Your task to perform on an android device: clear history in the chrome app Image 0: 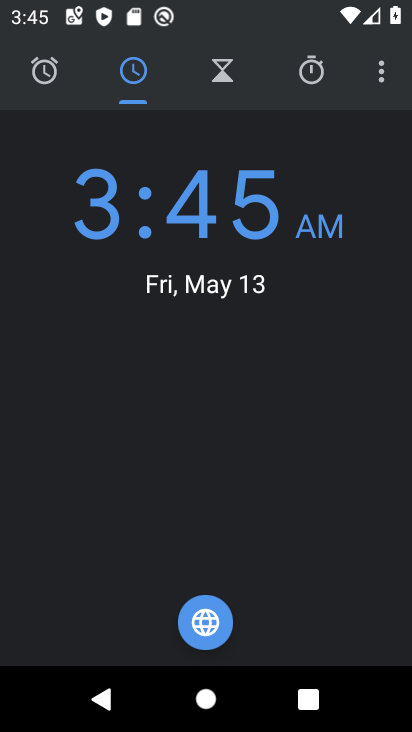
Step 0: press home button
Your task to perform on an android device: clear history in the chrome app Image 1: 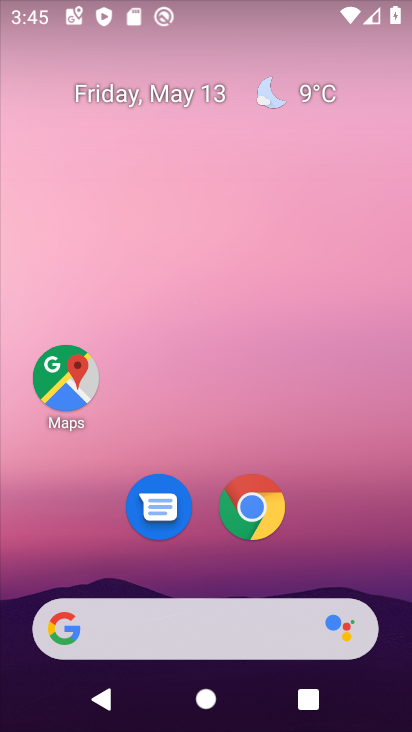
Step 1: drag from (348, 524) to (329, 80)
Your task to perform on an android device: clear history in the chrome app Image 2: 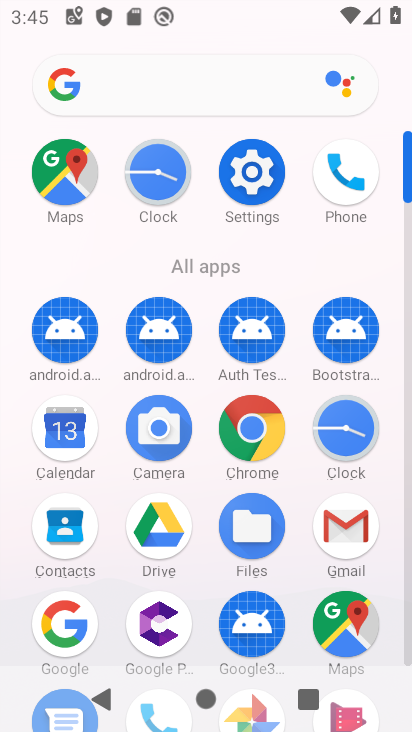
Step 2: click (259, 446)
Your task to perform on an android device: clear history in the chrome app Image 3: 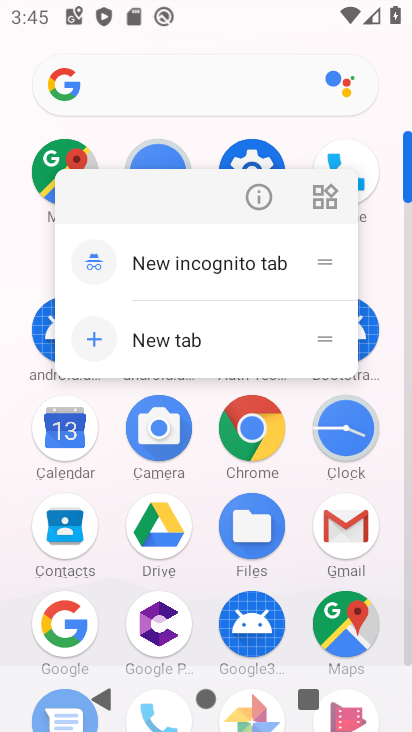
Step 3: click (259, 446)
Your task to perform on an android device: clear history in the chrome app Image 4: 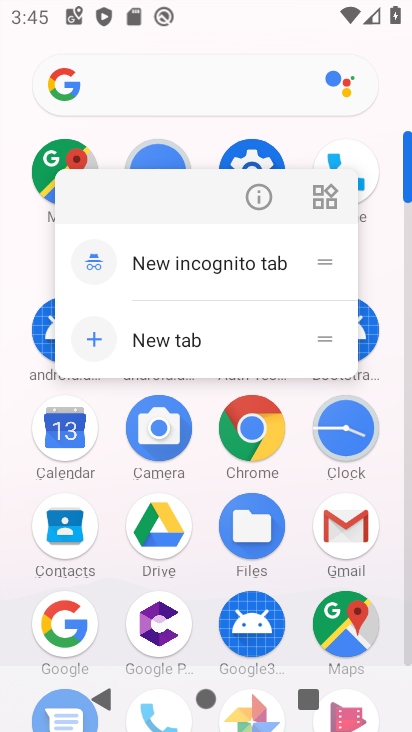
Step 4: click (259, 446)
Your task to perform on an android device: clear history in the chrome app Image 5: 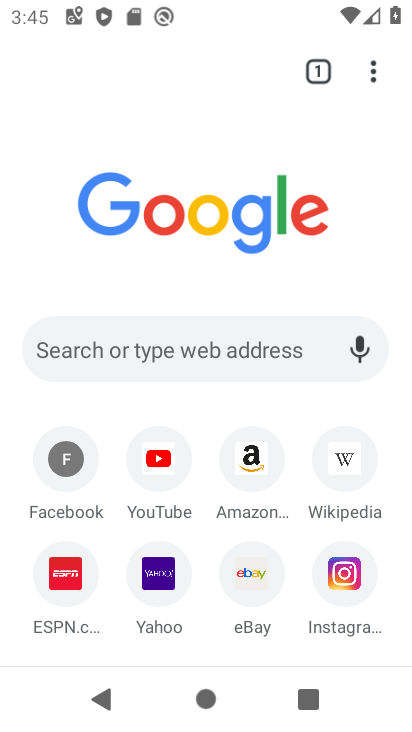
Step 5: task complete